Your task to perform on an android device: toggle wifi Image 0: 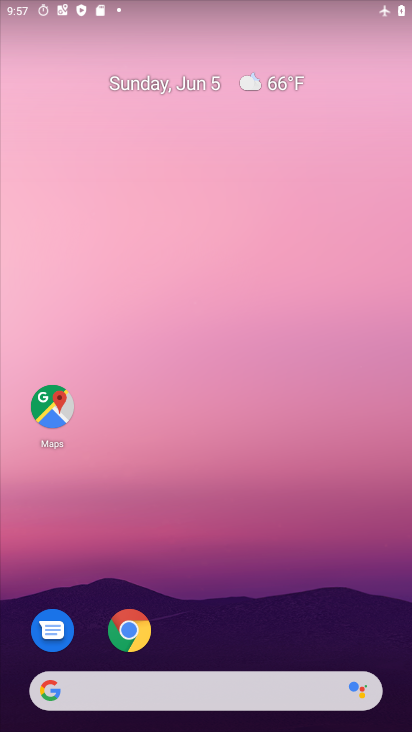
Step 0: drag from (216, 713) to (218, 23)
Your task to perform on an android device: toggle wifi Image 1: 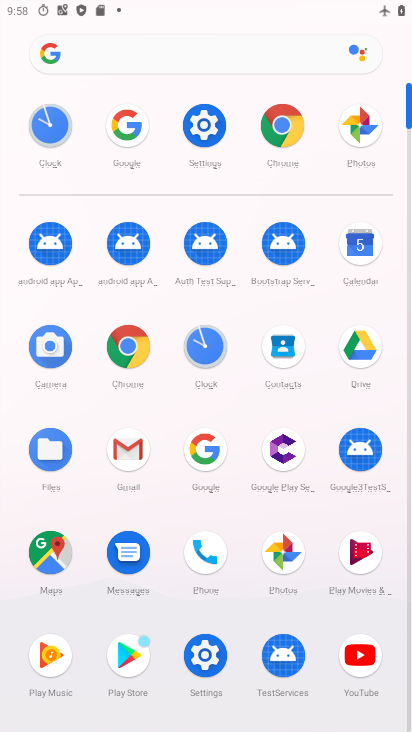
Step 1: click (199, 118)
Your task to perform on an android device: toggle wifi Image 2: 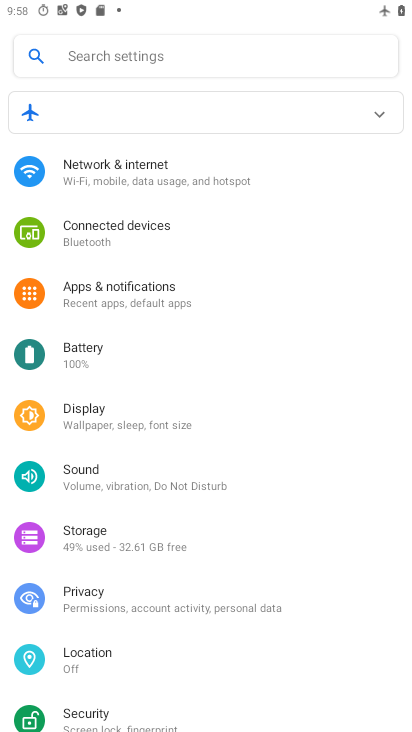
Step 2: click (126, 172)
Your task to perform on an android device: toggle wifi Image 3: 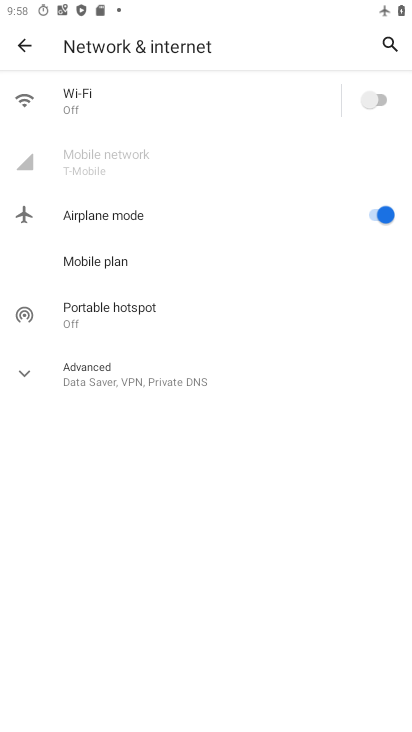
Step 3: click (372, 95)
Your task to perform on an android device: toggle wifi Image 4: 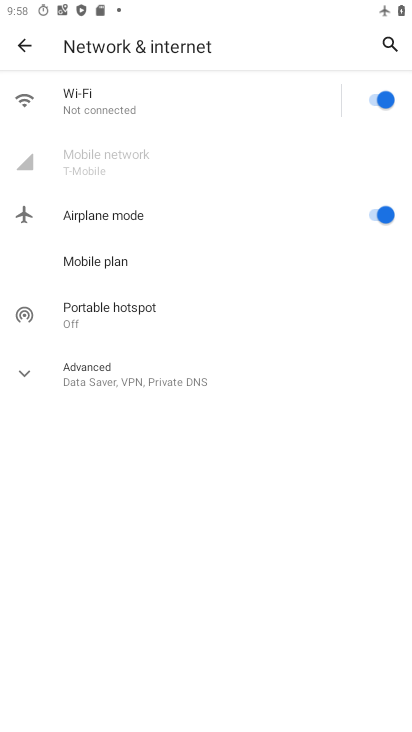
Step 4: task complete